Your task to perform on an android device: toggle wifi Image 0: 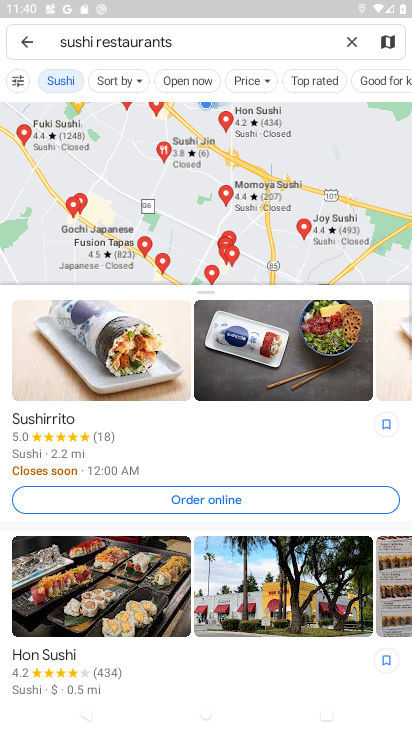
Step 0: press home button
Your task to perform on an android device: toggle wifi Image 1: 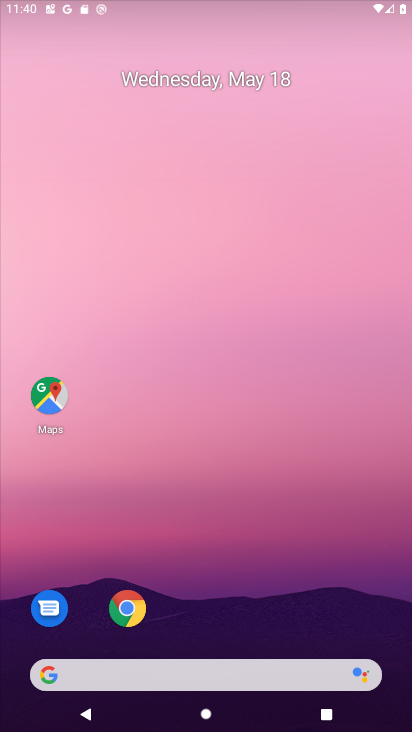
Step 1: drag from (227, 462) to (228, 62)
Your task to perform on an android device: toggle wifi Image 2: 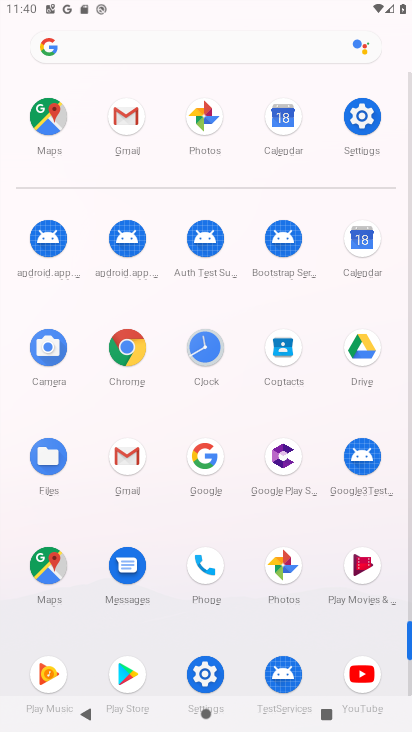
Step 2: click (368, 99)
Your task to perform on an android device: toggle wifi Image 3: 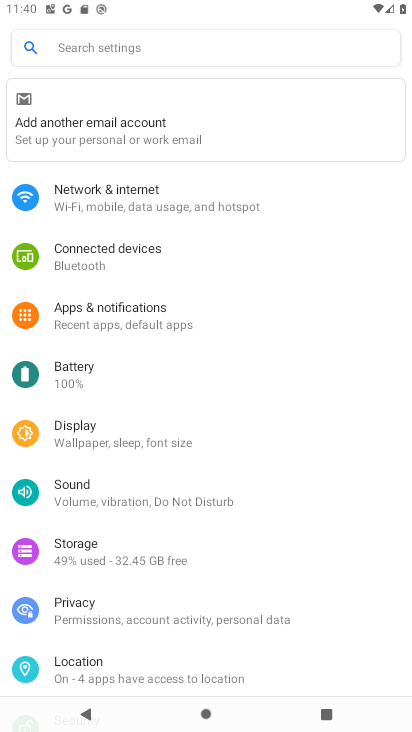
Step 3: click (106, 192)
Your task to perform on an android device: toggle wifi Image 4: 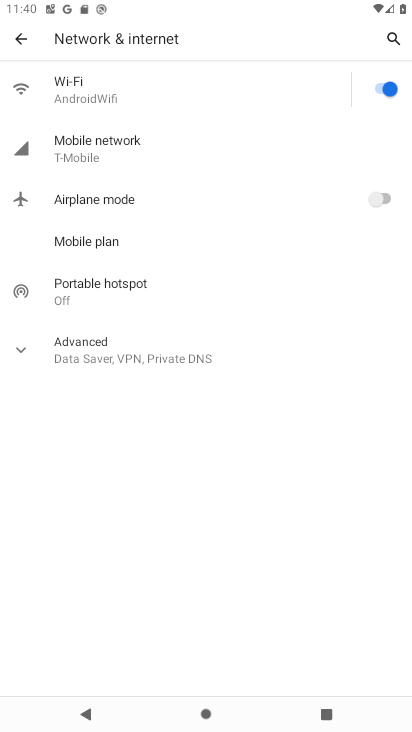
Step 4: click (393, 88)
Your task to perform on an android device: toggle wifi Image 5: 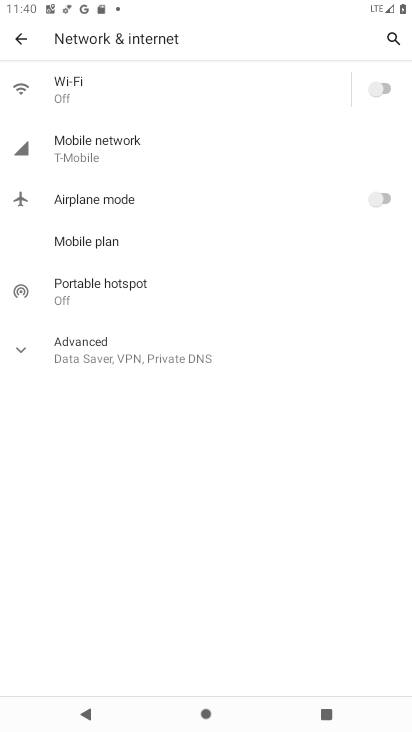
Step 5: task complete